Your task to perform on an android device: Show me recent news Image 0: 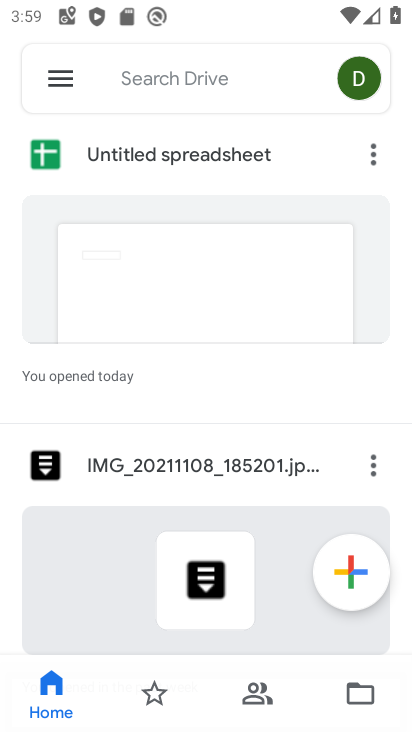
Step 0: press home button
Your task to perform on an android device: Show me recent news Image 1: 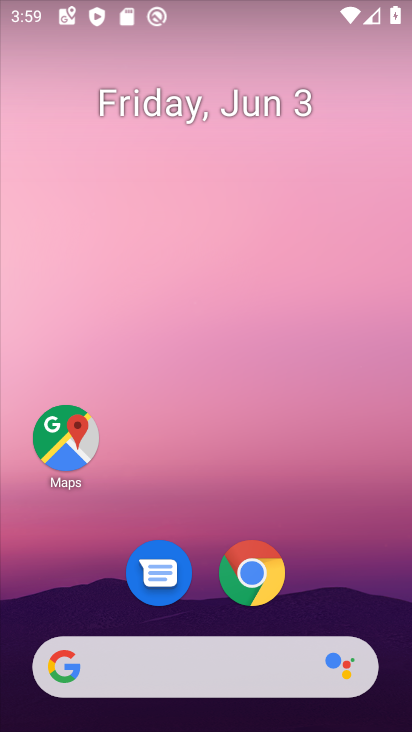
Step 1: task complete